Your task to perform on an android device: turn off translation in the chrome app Image 0: 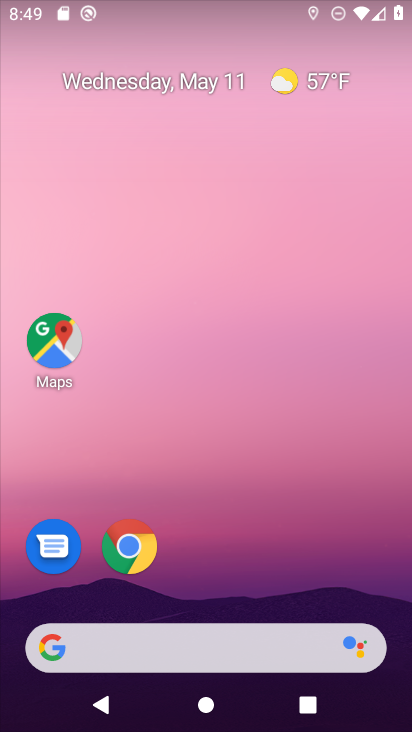
Step 0: click (119, 560)
Your task to perform on an android device: turn off translation in the chrome app Image 1: 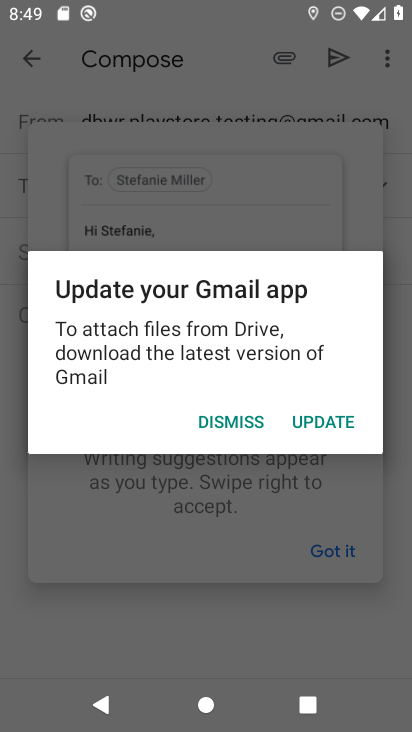
Step 1: press home button
Your task to perform on an android device: turn off translation in the chrome app Image 2: 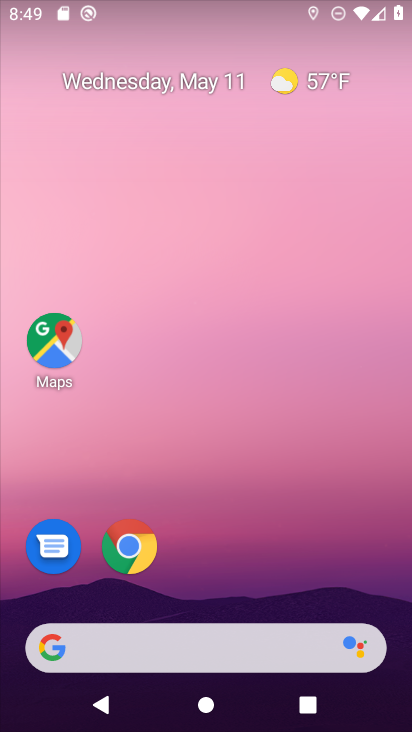
Step 2: click (117, 547)
Your task to perform on an android device: turn off translation in the chrome app Image 3: 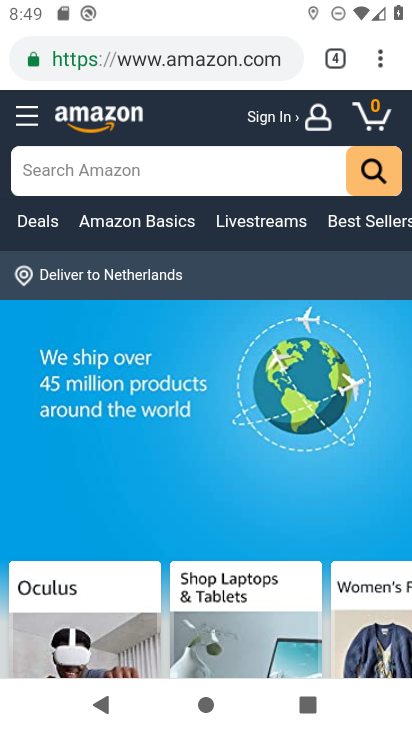
Step 3: drag from (375, 63) to (223, 594)
Your task to perform on an android device: turn off translation in the chrome app Image 4: 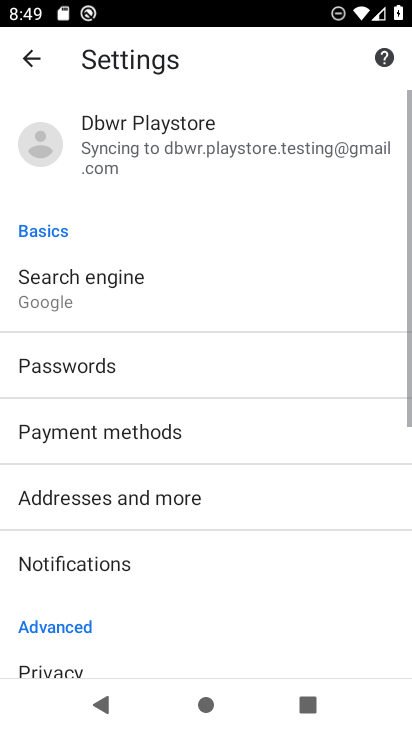
Step 4: drag from (223, 594) to (232, 319)
Your task to perform on an android device: turn off translation in the chrome app Image 5: 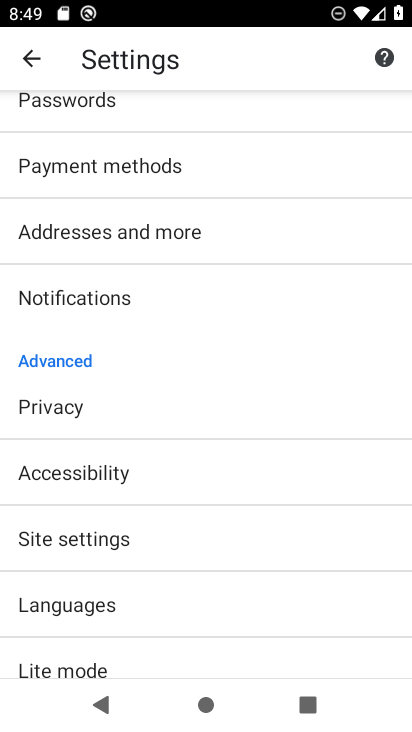
Step 5: click (96, 588)
Your task to perform on an android device: turn off translation in the chrome app Image 6: 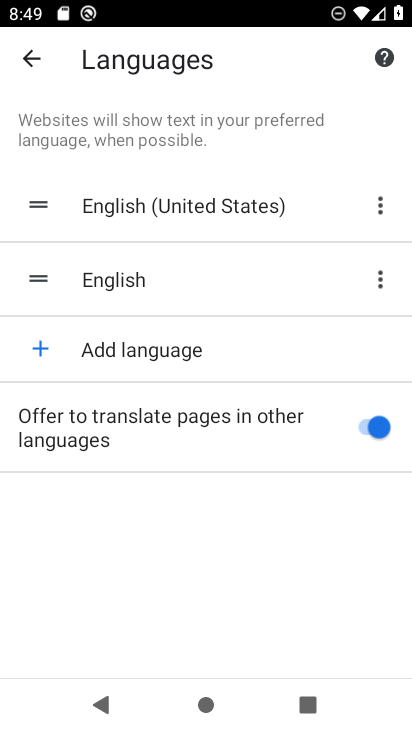
Step 6: click (365, 420)
Your task to perform on an android device: turn off translation in the chrome app Image 7: 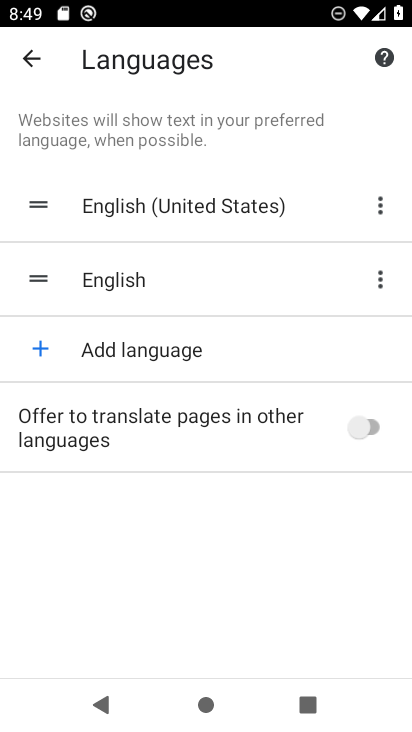
Step 7: task complete